Your task to perform on an android device: change alarm snooze length Image 0: 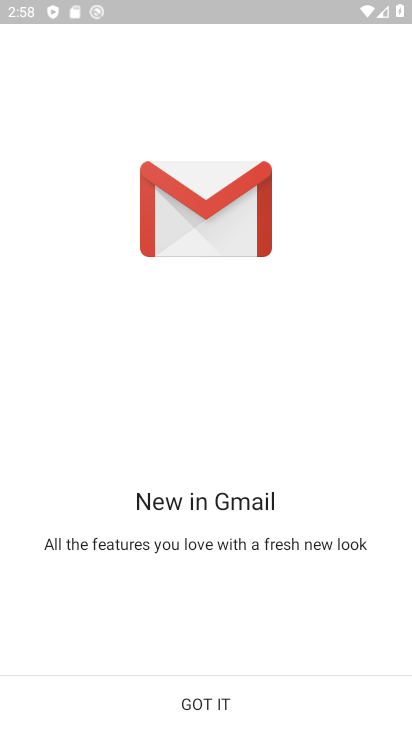
Step 0: press home button
Your task to perform on an android device: change alarm snooze length Image 1: 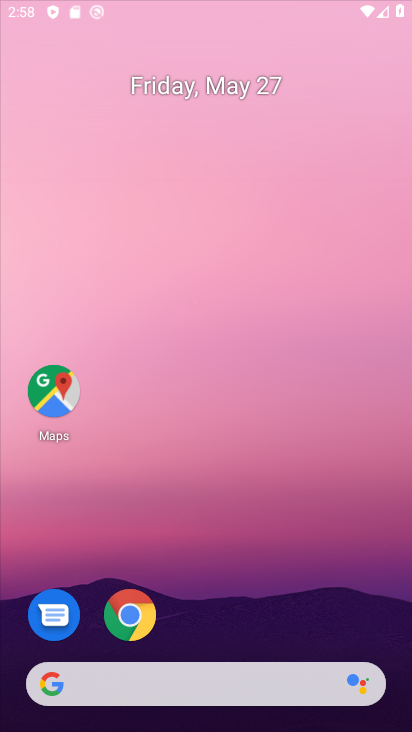
Step 1: drag from (127, 728) to (222, 47)
Your task to perform on an android device: change alarm snooze length Image 2: 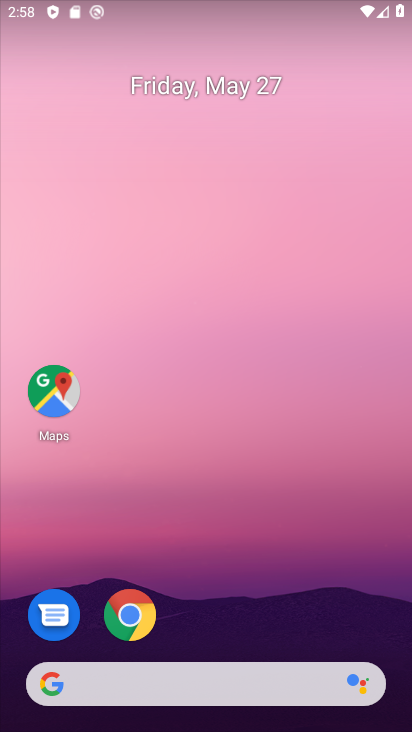
Step 2: drag from (102, 286) to (107, 63)
Your task to perform on an android device: change alarm snooze length Image 3: 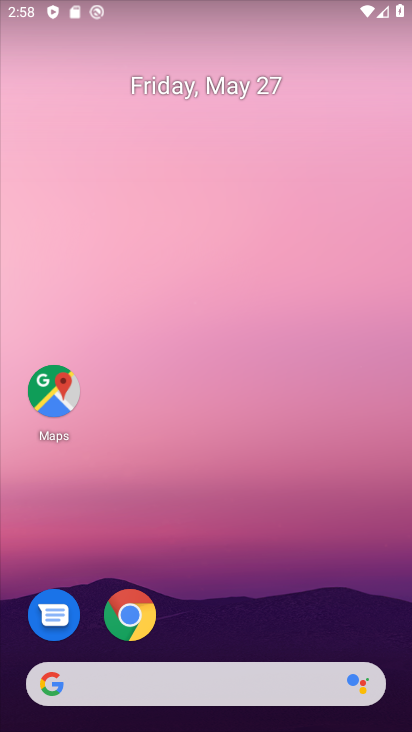
Step 3: drag from (122, 724) to (165, 4)
Your task to perform on an android device: change alarm snooze length Image 4: 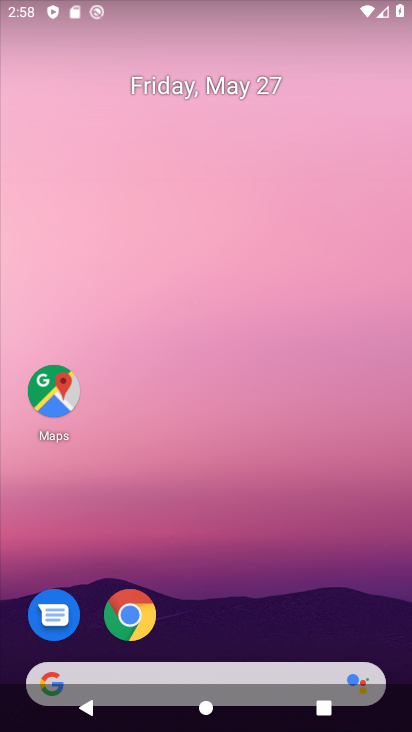
Step 4: drag from (148, 725) to (234, 40)
Your task to perform on an android device: change alarm snooze length Image 5: 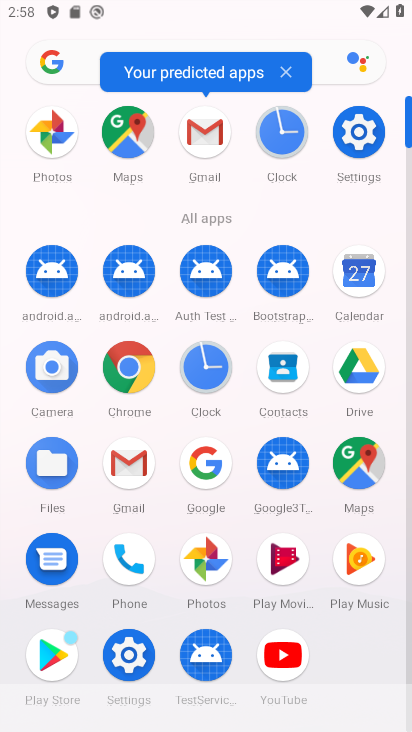
Step 5: click (283, 135)
Your task to perform on an android device: change alarm snooze length Image 6: 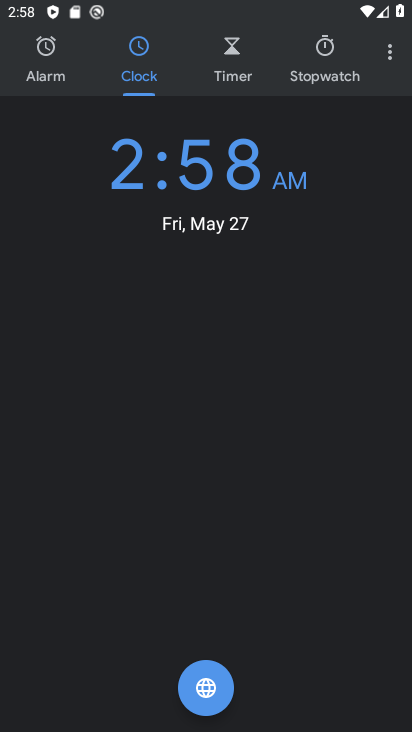
Step 6: click (386, 58)
Your task to perform on an android device: change alarm snooze length Image 7: 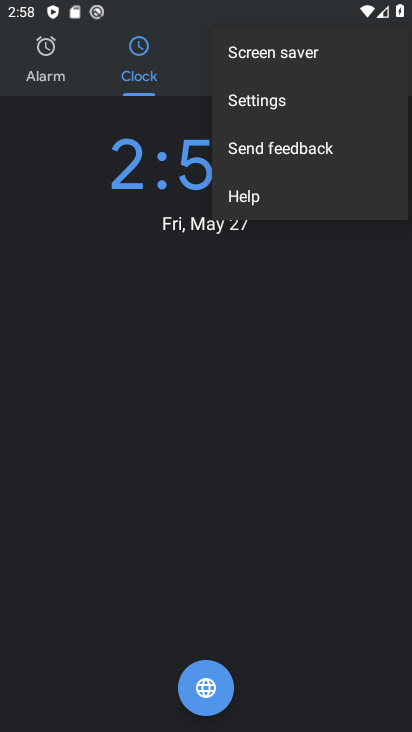
Step 7: click (272, 106)
Your task to perform on an android device: change alarm snooze length Image 8: 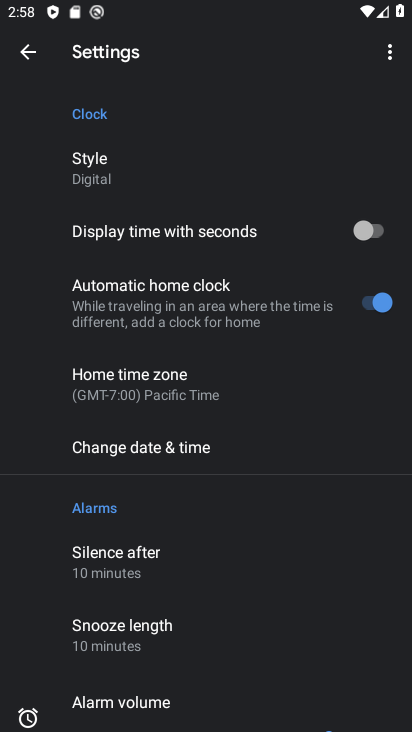
Step 8: click (142, 639)
Your task to perform on an android device: change alarm snooze length Image 9: 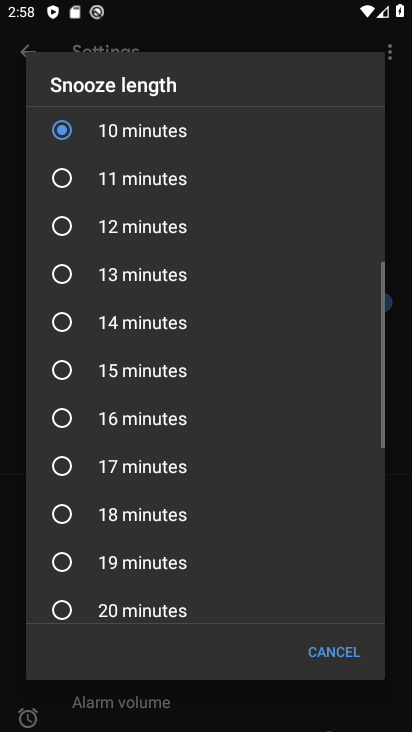
Step 9: click (158, 279)
Your task to perform on an android device: change alarm snooze length Image 10: 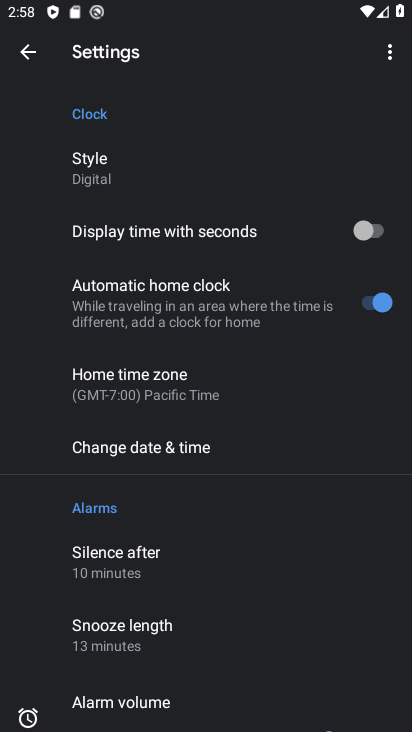
Step 10: task complete